Your task to perform on an android device: Open the phone app and click the voicemail tab. Image 0: 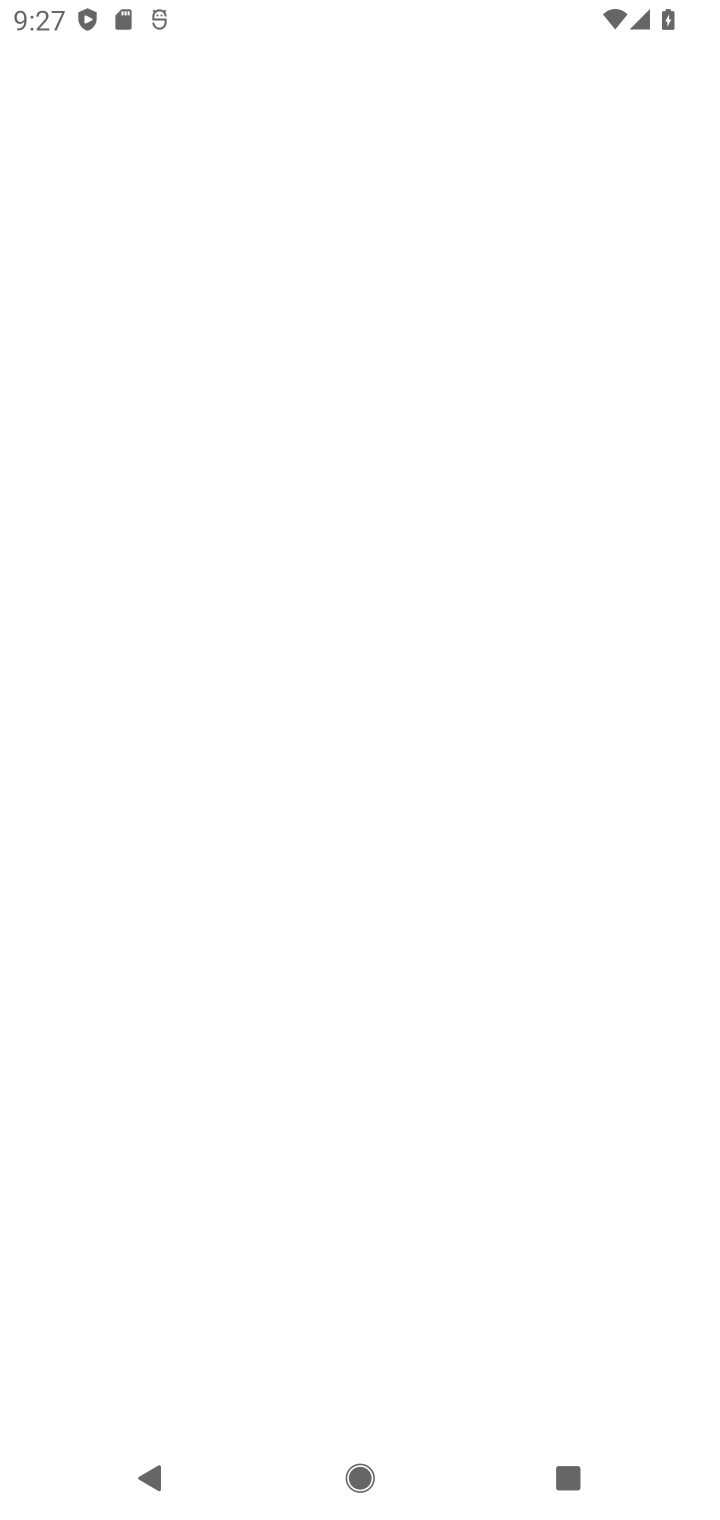
Step 0: press home button
Your task to perform on an android device: Open the phone app and click the voicemail tab. Image 1: 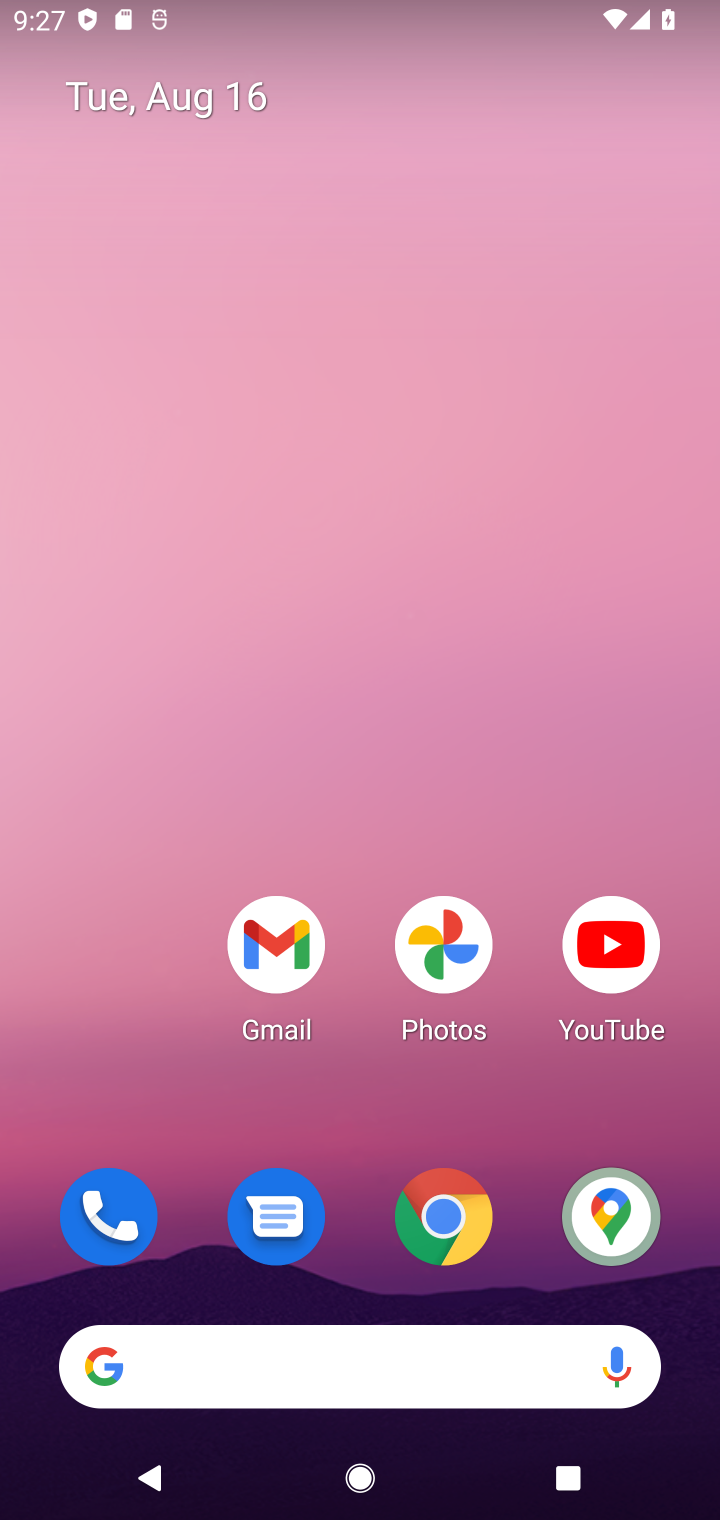
Step 1: drag from (387, 1102) to (387, 20)
Your task to perform on an android device: Open the phone app and click the voicemail tab. Image 2: 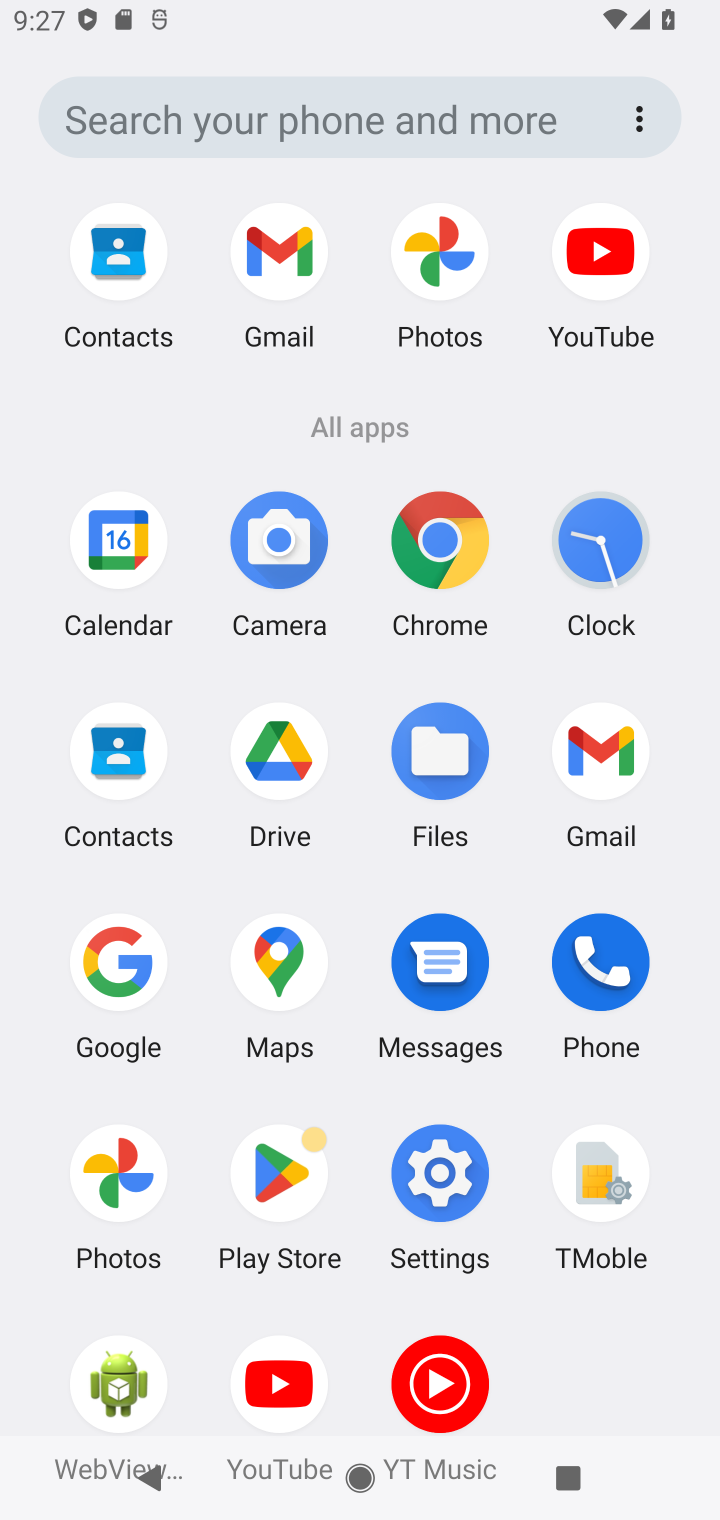
Step 2: click (616, 961)
Your task to perform on an android device: Open the phone app and click the voicemail tab. Image 3: 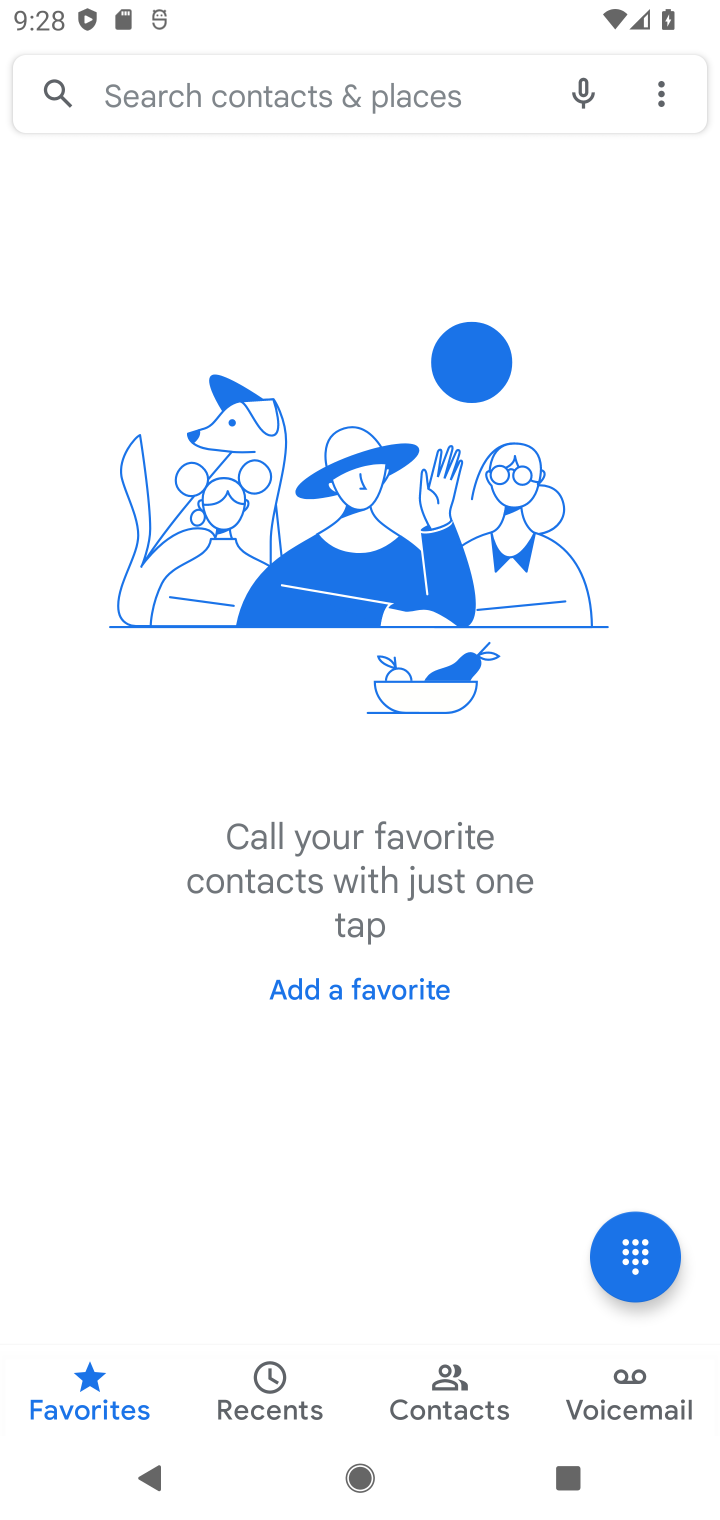
Step 3: click (650, 1392)
Your task to perform on an android device: Open the phone app and click the voicemail tab. Image 4: 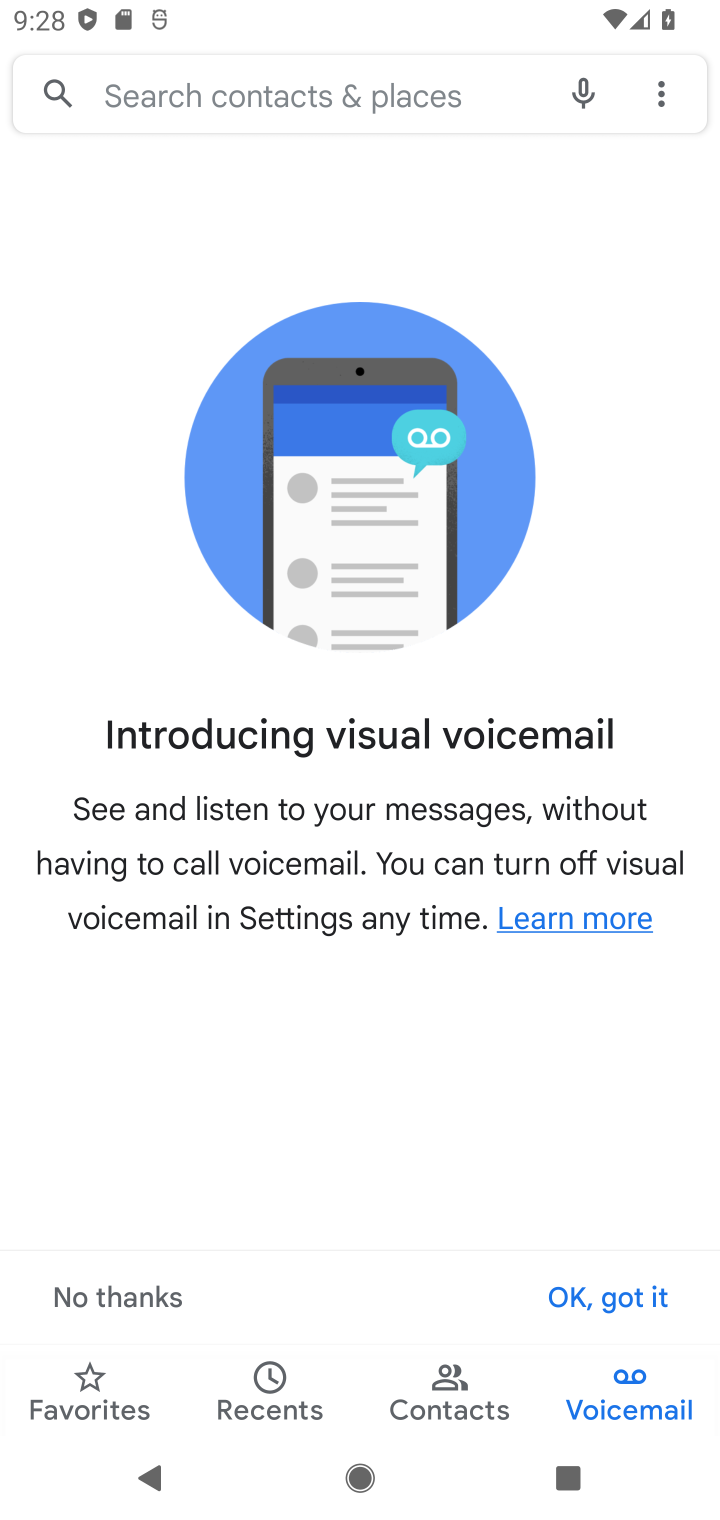
Step 4: task complete